Your task to perform on an android device: set the timer Image 0: 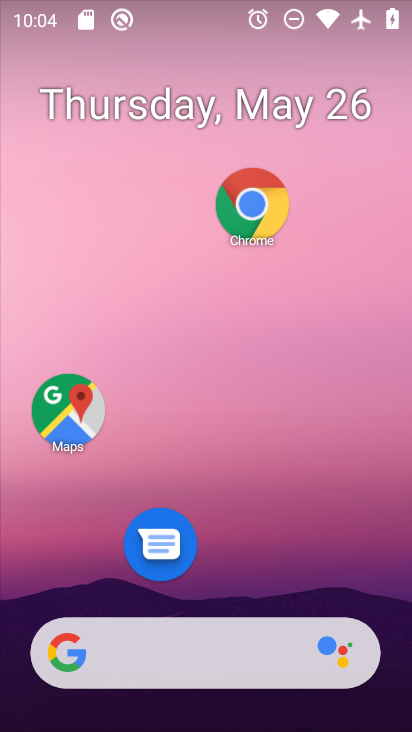
Step 0: press home button
Your task to perform on an android device: set the timer Image 1: 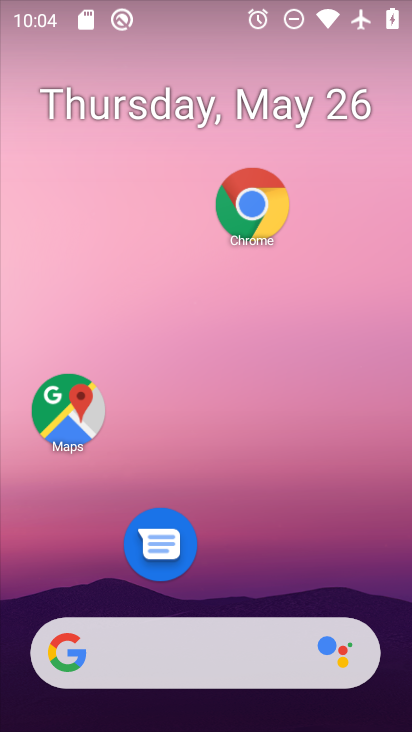
Step 1: drag from (216, 595) to (246, 124)
Your task to perform on an android device: set the timer Image 2: 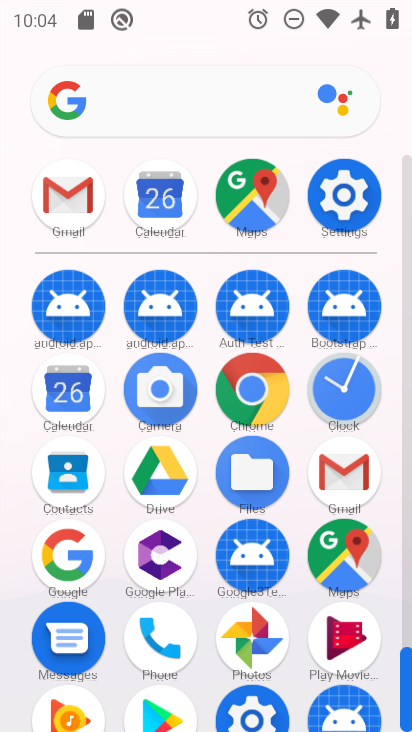
Step 2: click (340, 383)
Your task to perform on an android device: set the timer Image 3: 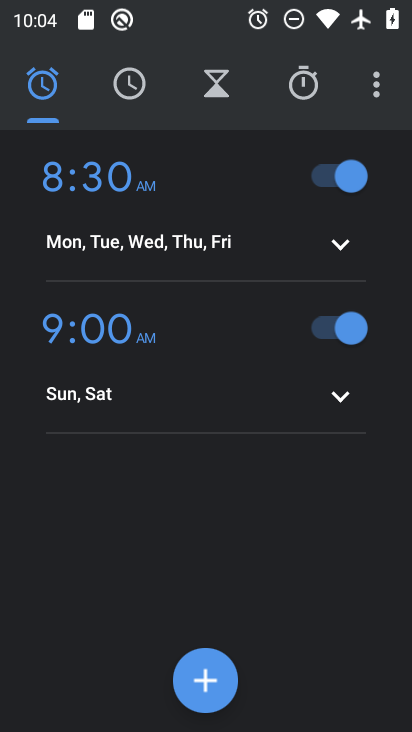
Step 3: click (216, 80)
Your task to perform on an android device: set the timer Image 4: 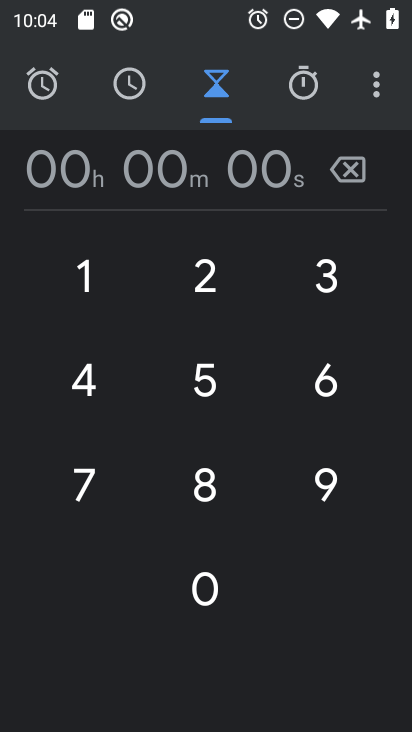
Step 4: click (320, 275)
Your task to perform on an android device: set the timer Image 5: 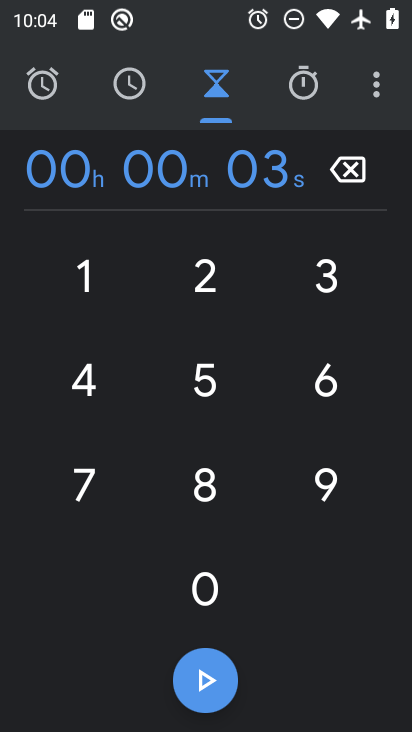
Step 5: click (209, 588)
Your task to perform on an android device: set the timer Image 6: 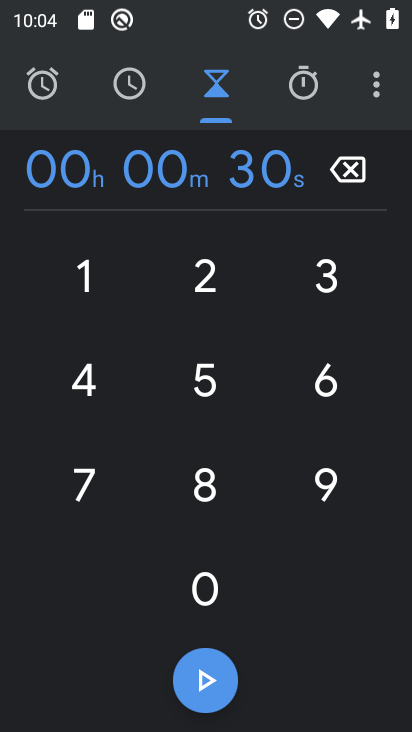
Step 6: click (209, 588)
Your task to perform on an android device: set the timer Image 7: 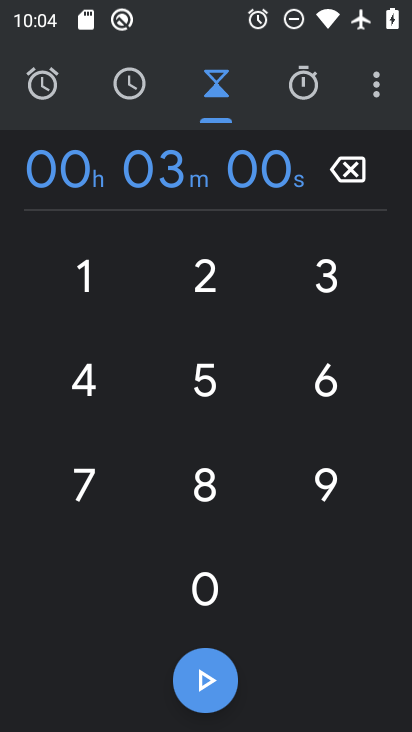
Step 7: click (209, 588)
Your task to perform on an android device: set the timer Image 8: 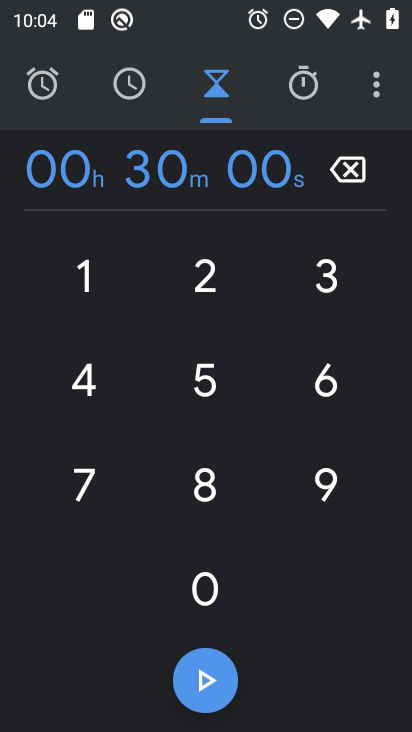
Step 8: click (204, 675)
Your task to perform on an android device: set the timer Image 9: 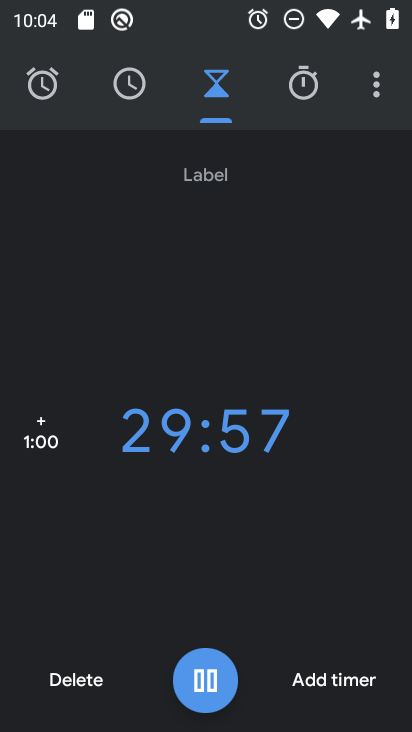
Step 9: task complete